Your task to perform on an android device: Open calendar and show me the third week of next month Image 0: 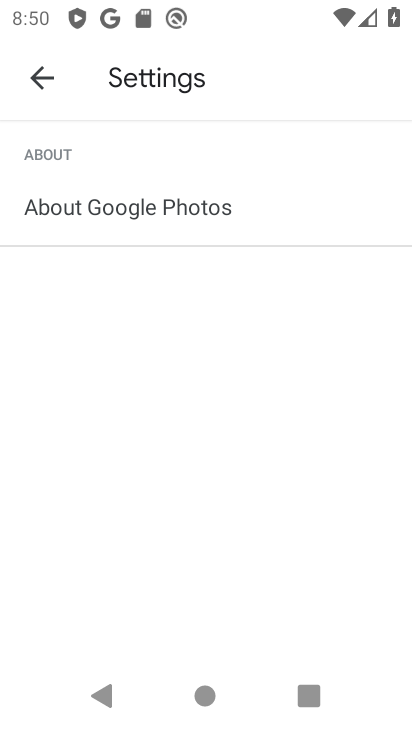
Step 0: press back button
Your task to perform on an android device: Open calendar and show me the third week of next month Image 1: 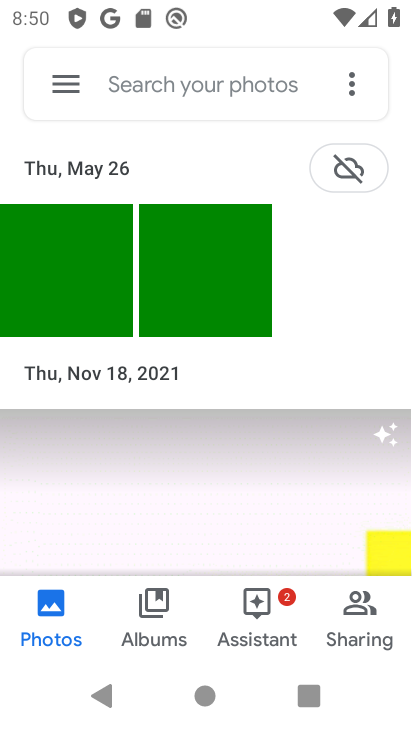
Step 1: press home button
Your task to perform on an android device: Open calendar and show me the third week of next month Image 2: 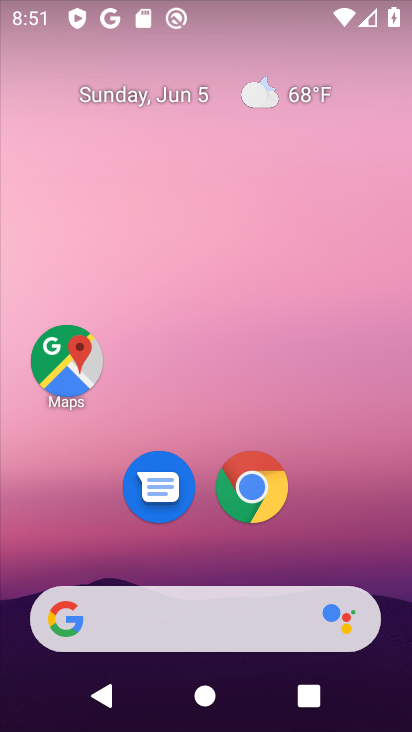
Step 2: drag from (167, 550) to (238, 47)
Your task to perform on an android device: Open calendar and show me the third week of next month Image 3: 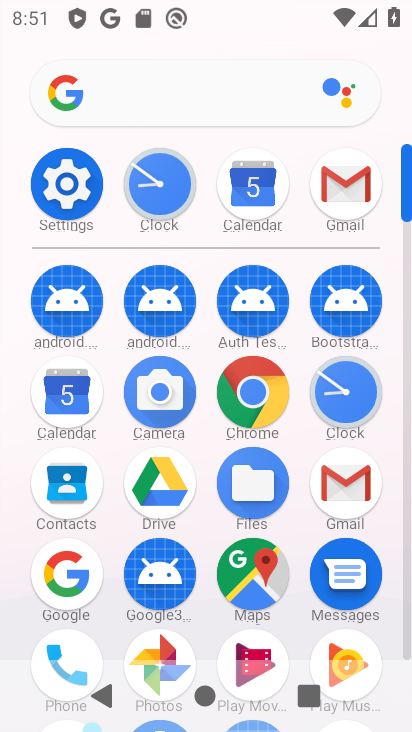
Step 3: click (64, 399)
Your task to perform on an android device: Open calendar and show me the third week of next month Image 4: 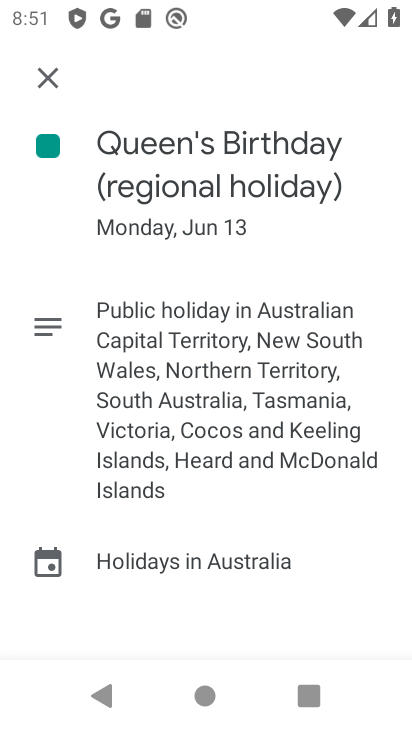
Step 4: click (49, 71)
Your task to perform on an android device: Open calendar and show me the third week of next month Image 5: 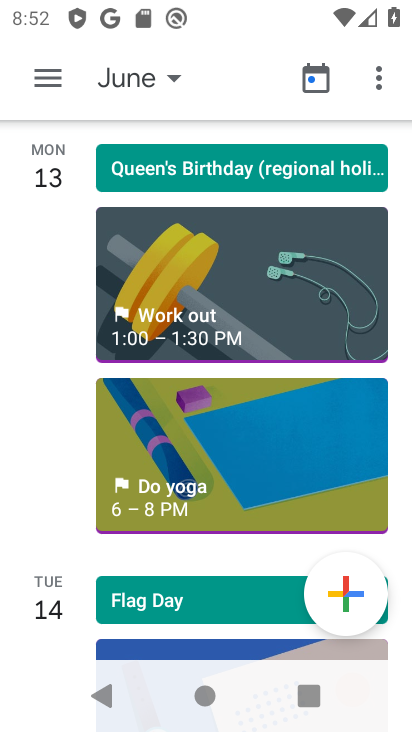
Step 5: click (137, 80)
Your task to perform on an android device: Open calendar and show me the third week of next month Image 6: 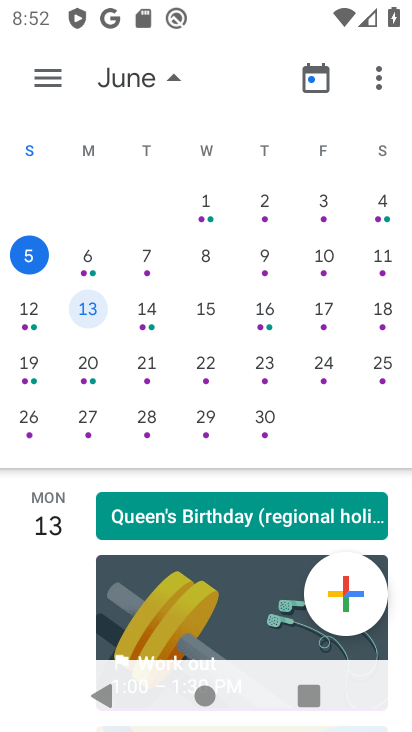
Step 6: drag from (392, 300) to (20, 249)
Your task to perform on an android device: Open calendar and show me the third week of next month Image 7: 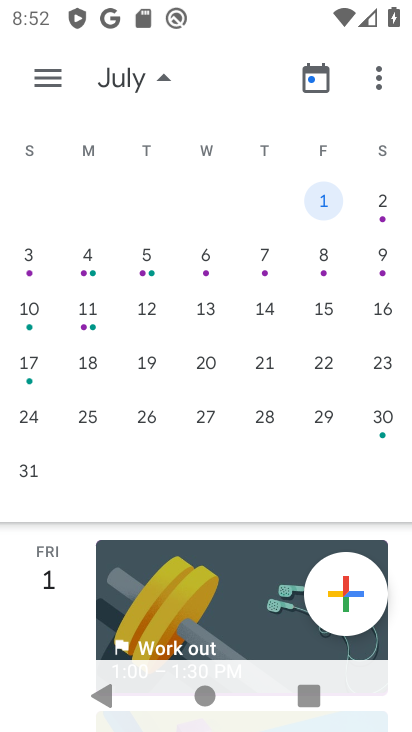
Step 7: click (91, 364)
Your task to perform on an android device: Open calendar and show me the third week of next month Image 8: 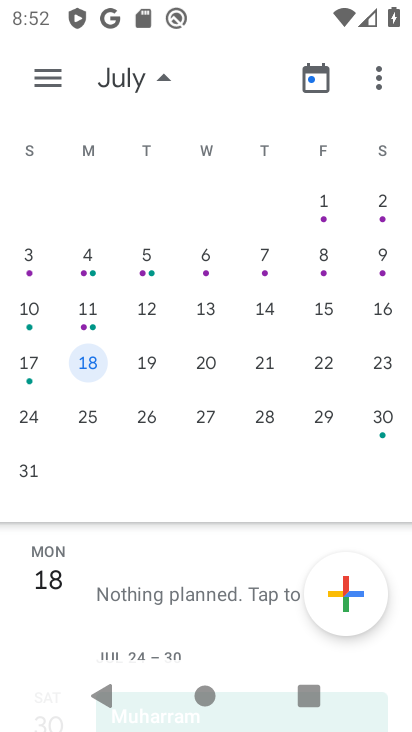
Step 8: task complete